Your task to perform on an android device: Go to calendar. Show me events next week Image 0: 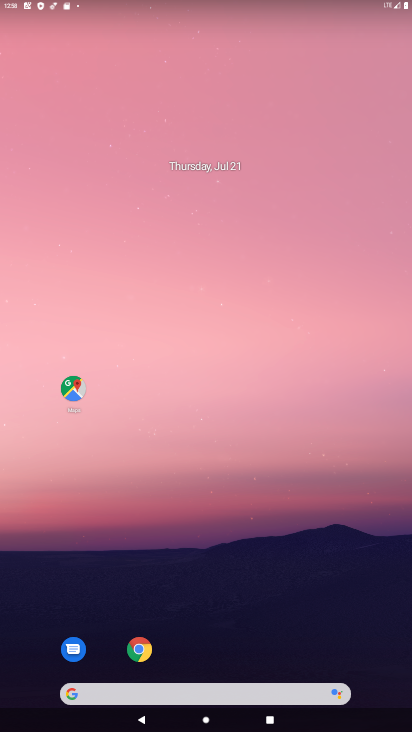
Step 0: drag from (235, 680) to (170, 248)
Your task to perform on an android device: Go to calendar. Show me events next week Image 1: 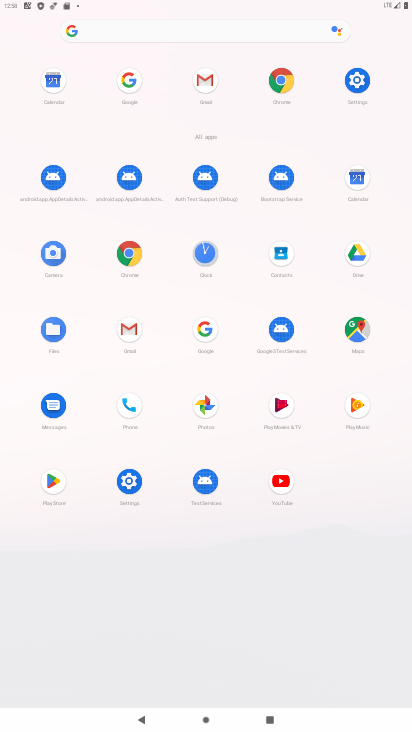
Step 1: click (356, 183)
Your task to perform on an android device: Go to calendar. Show me events next week Image 2: 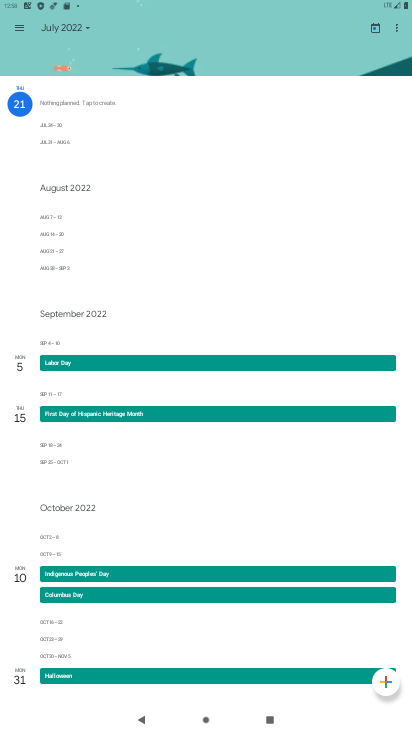
Step 2: click (15, 26)
Your task to perform on an android device: Go to calendar. Show me events next week Image 3: 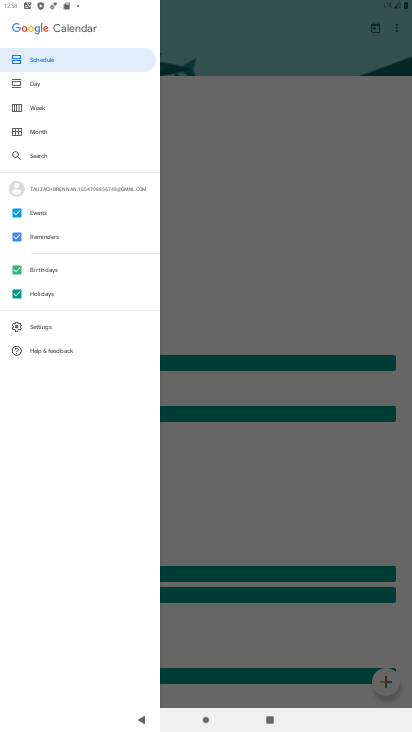
Step 3: click (33, 62)
Your task to perform on an android device: Go to calendar. Show me events next week Image 4: 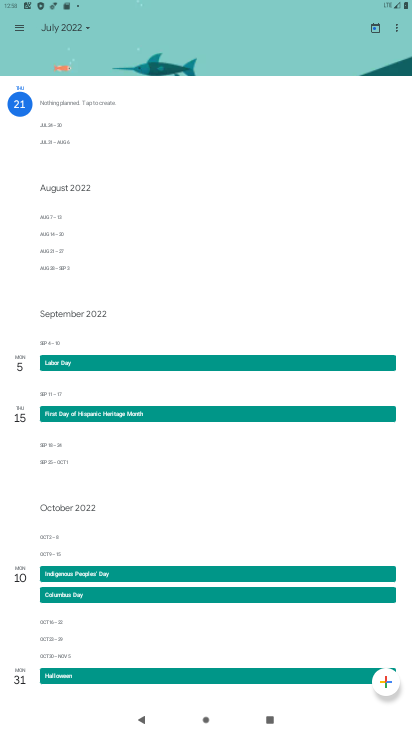
Step 4: click (50, 27)
Your task to perform on an android device: Go to calendar. Show me events next week Image 5: 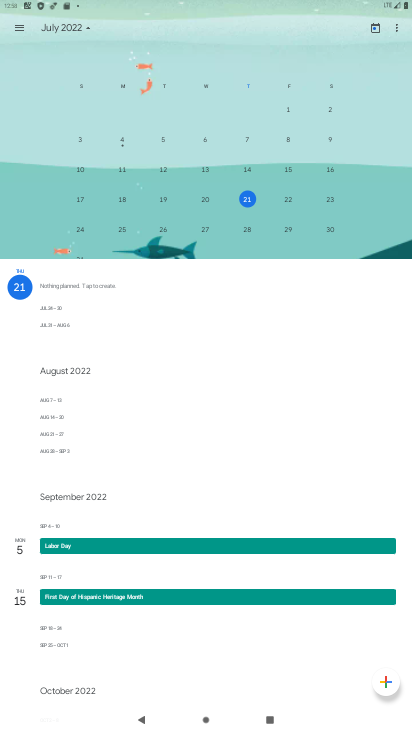
Step 5: click (240, 232)
Your task to perform on an android device: Go to calendar. Show me events next week Image 6: 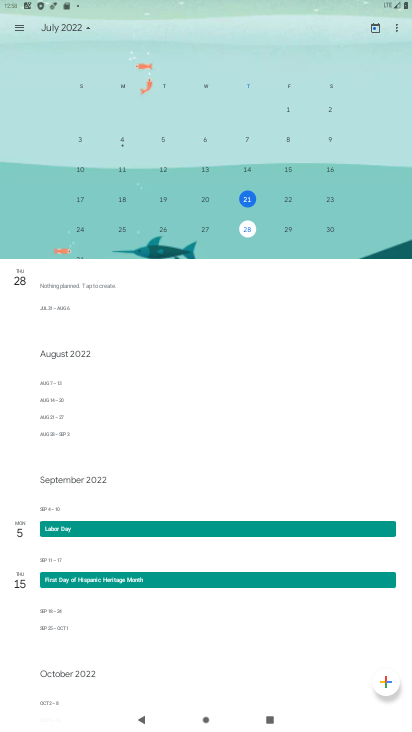
Step 6: click (80, 229)
Your task to perform on an android device: Go to calendar. Show me events next week Image 7: 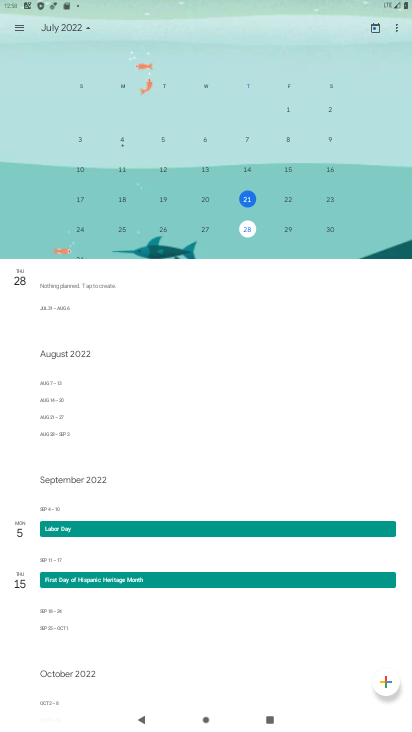
Step 7: task complete